Your task to perform on an android device: see creations saved in the google photos Image 0: 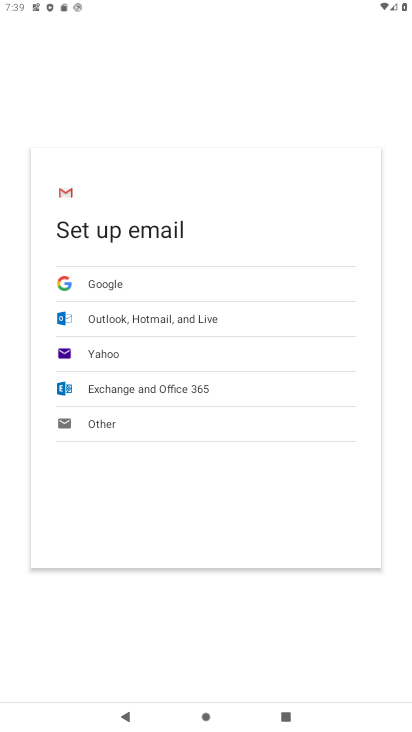
Step 0: press home button
Your task to perform on an android device: see creations saved in the google photos Image 1: 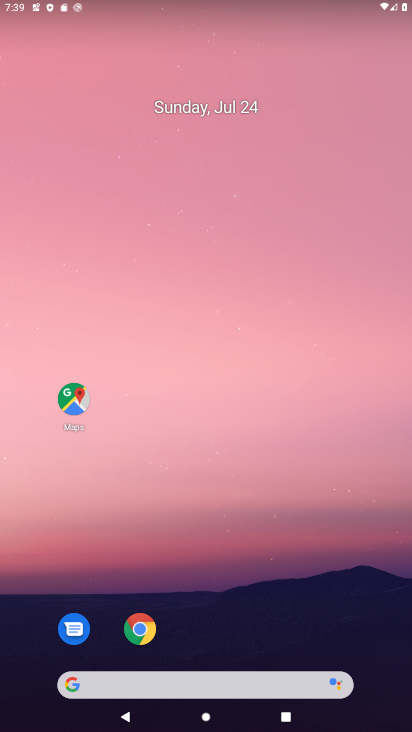
Step 1: drag from (372, 620) to (363, 112)
Your task to perform on an android device: see creations saved in the google photos Image 2: 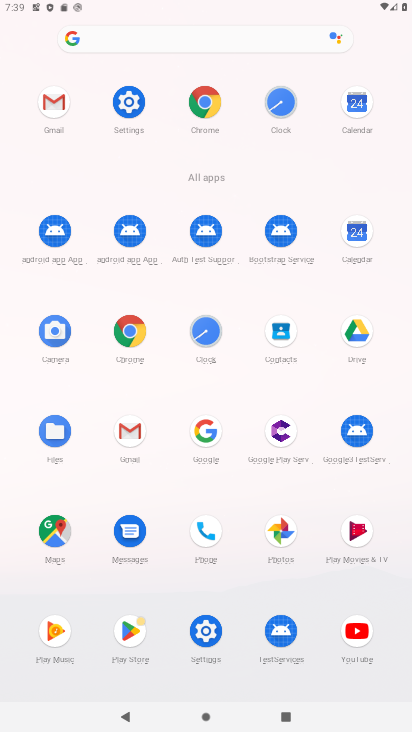
Step 2: click (285, 529)
Your task to perform on an android device: see creations saved in the google photos Image 3: 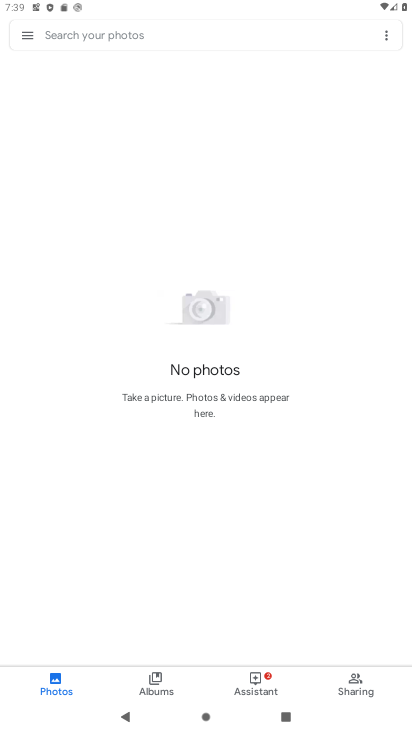
Step 3: click (185, 33)
Your task to perform on an android device: see creations saved in the google photos Image 4: 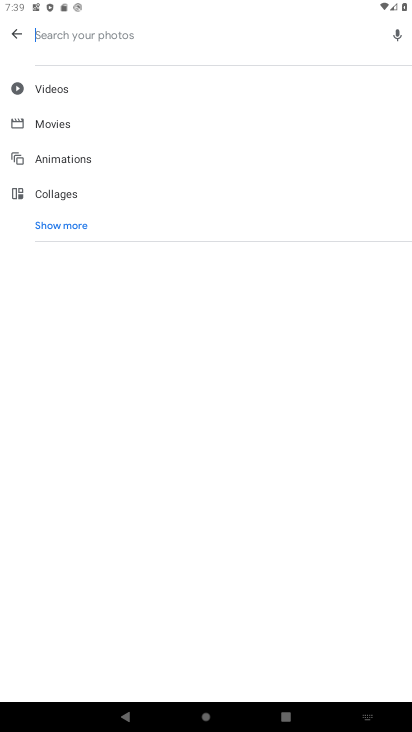
Step 4: click (99, 229)
Your task to perform on an android device: see creations saved in the google photos Image 5: 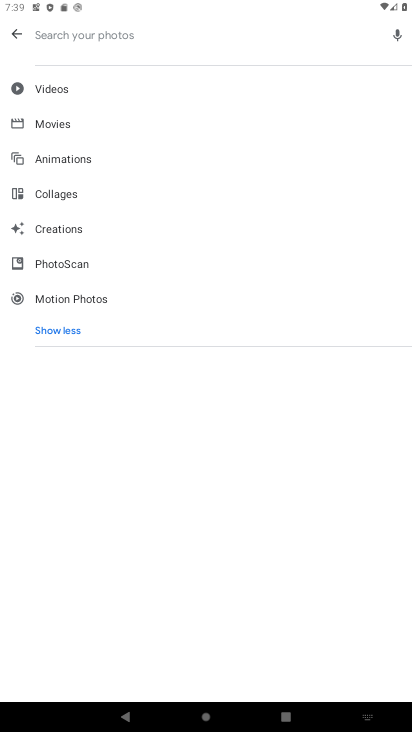
Step 5: click (69, 230)
Your task to perform on an android device: see creations saved in the google photos Image 6: 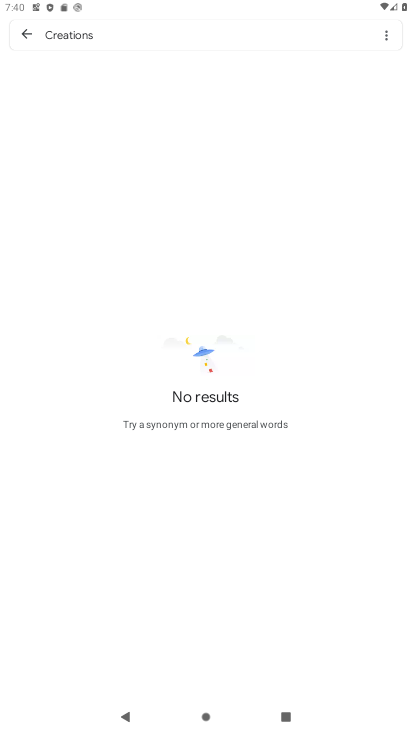
Step 6: task complete